Your task to perform on an android device: Open sound settings Image 0: 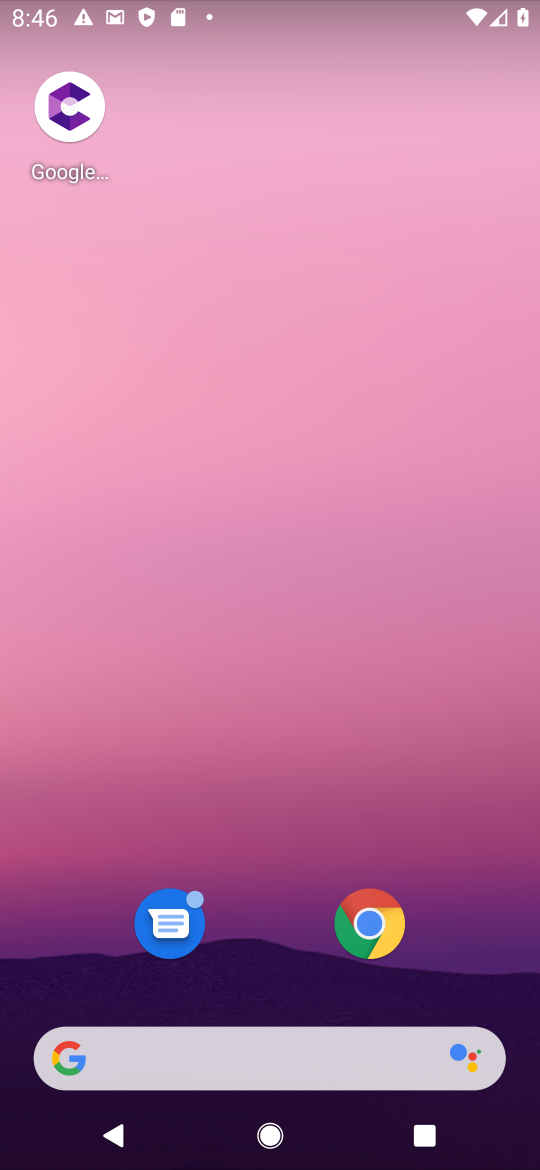
Step 0: press home button
Your task to perform on an android device: Open sound settings Image 1: 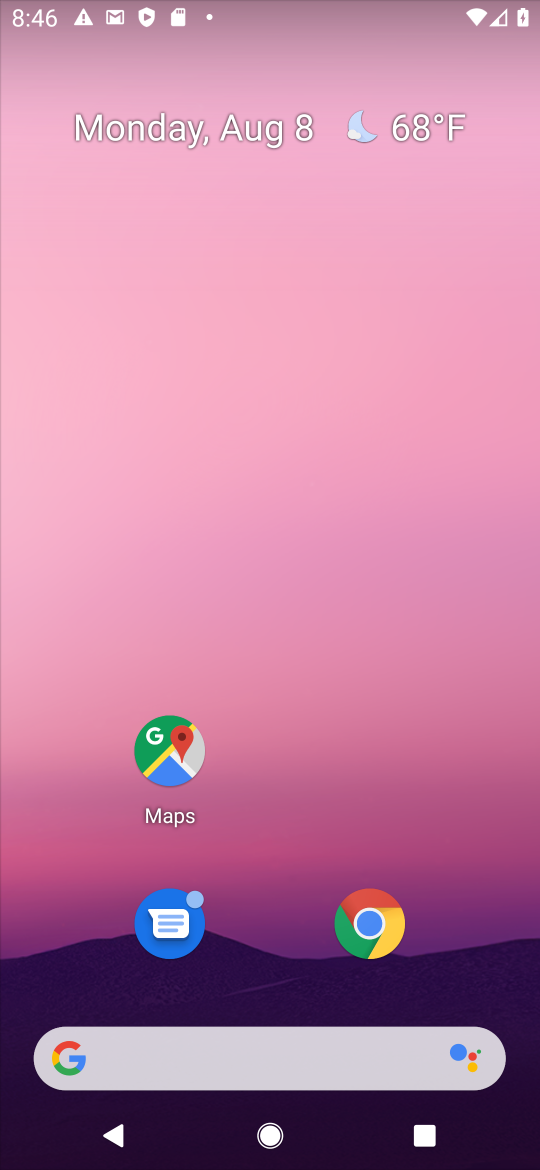
Step 1: drag from (299, 894) to (410, 135)
Your task to perform on an android device: Open sound settings Image 2: 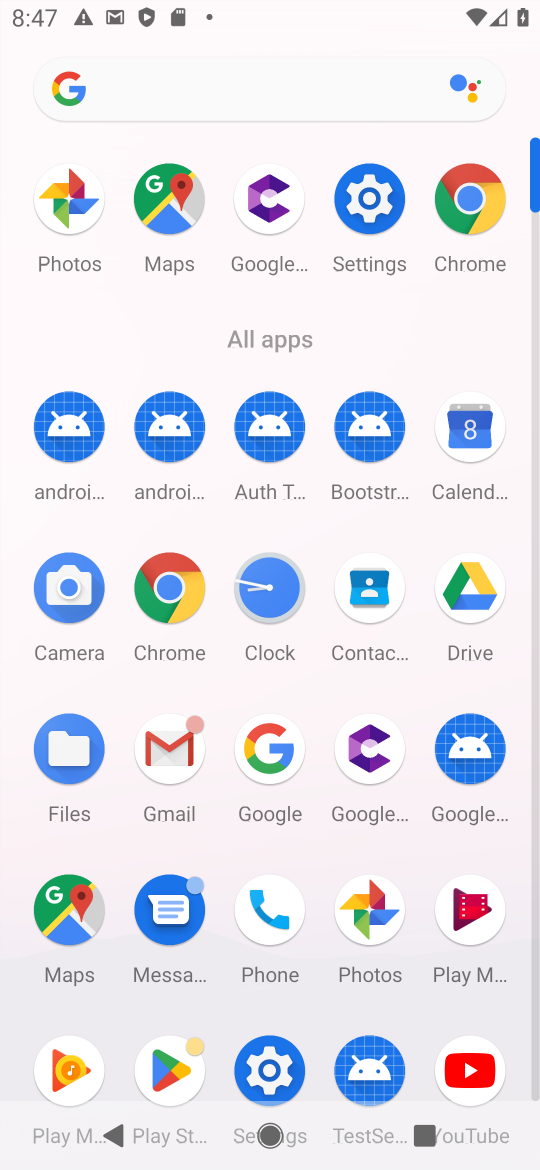
Step 2: drag from (373, 192) to (437, 702)
Your task to perform on an android device: Open sound settings Image 3: 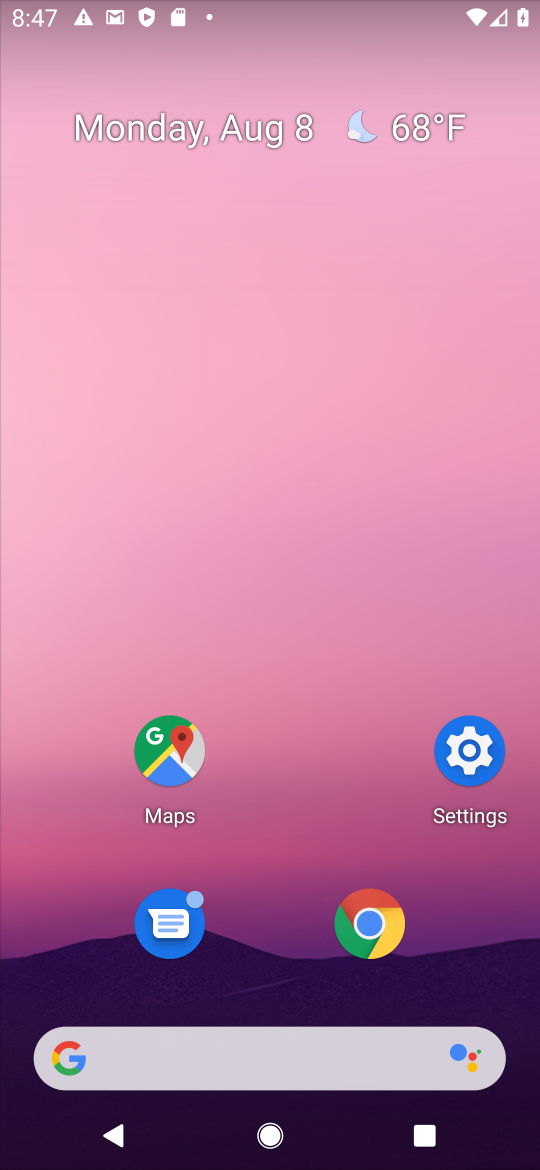
Step 3: click (469, 750)
Your task to perform on an android device: Open sound settings Image 4: 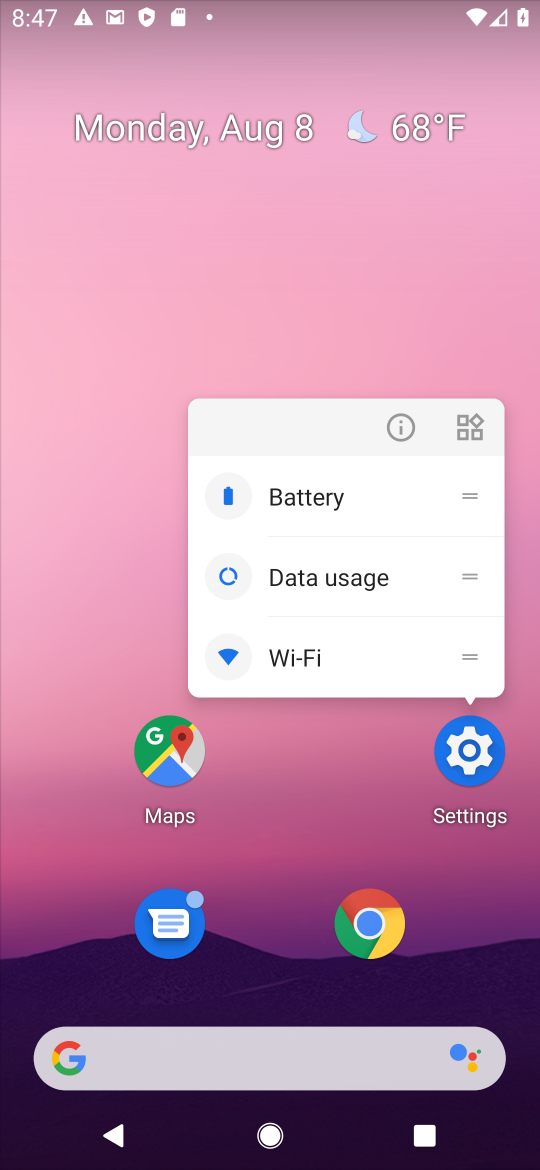
Step 4: click (469, 748)
Your task to perform on an android device: Open sound settings Image 5: 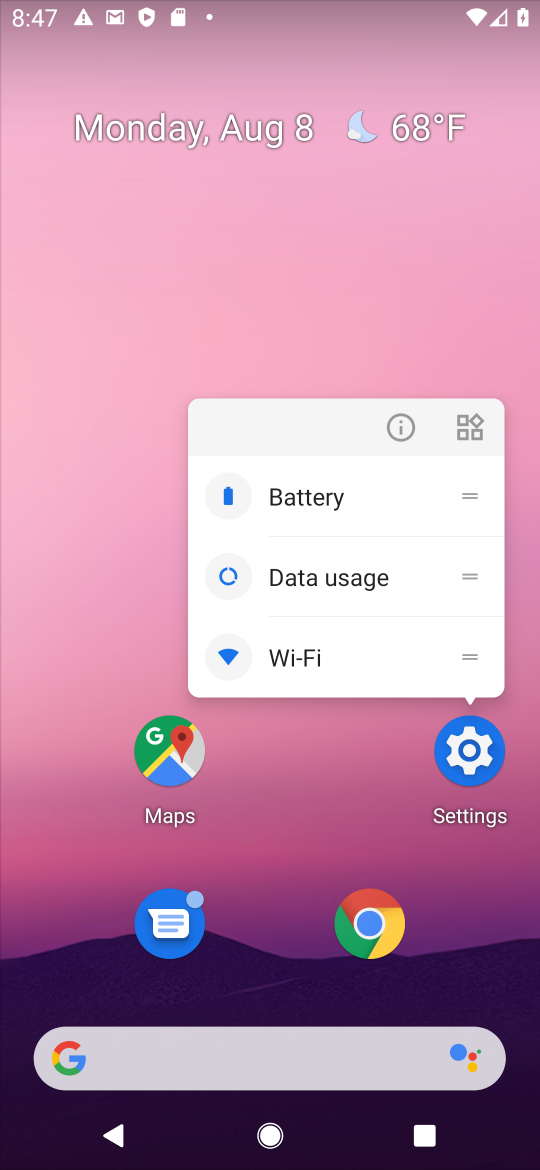
Step 5: click (469, 737)
Your task to perform on an android device: Open sound settings Image 6: 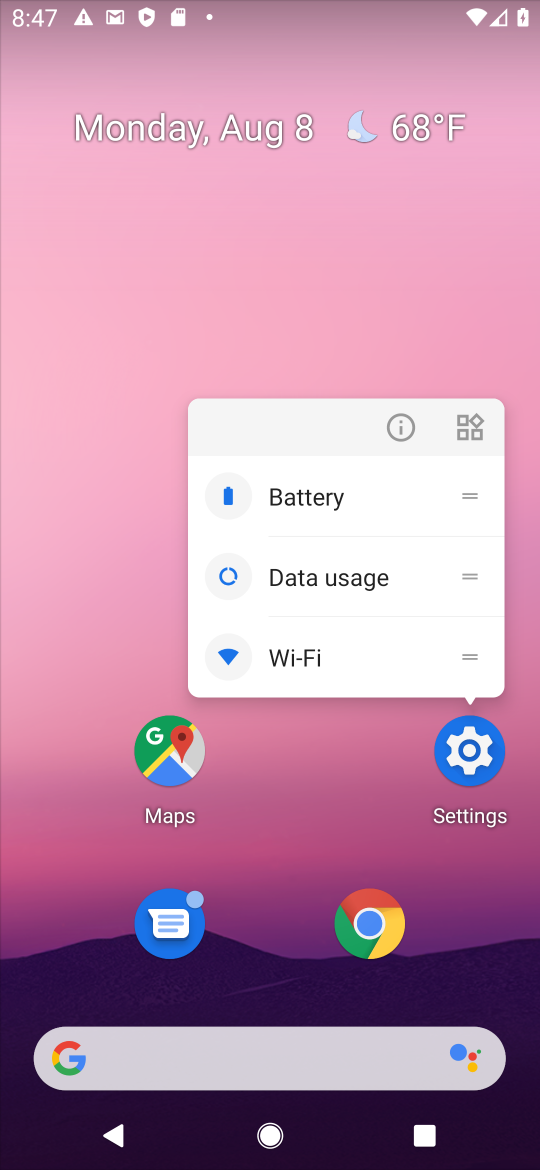
Step 6: click (469, 733)
Your task to perform on an android device: Open sound settings Image 7: 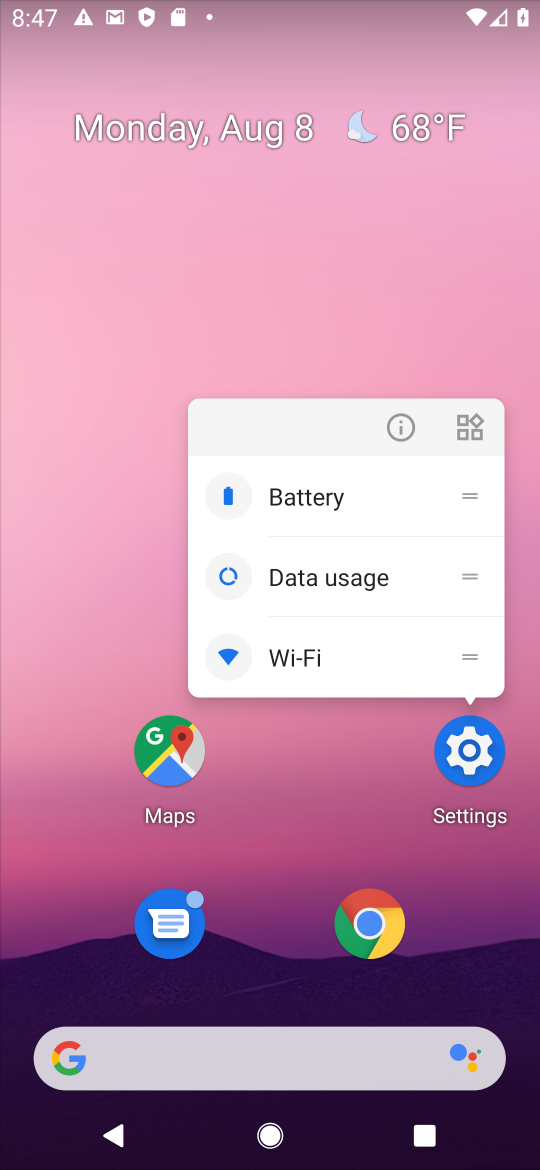
Step 7: click (469, 734)
Your task to perform on an android device: Open sound settings Image 8: 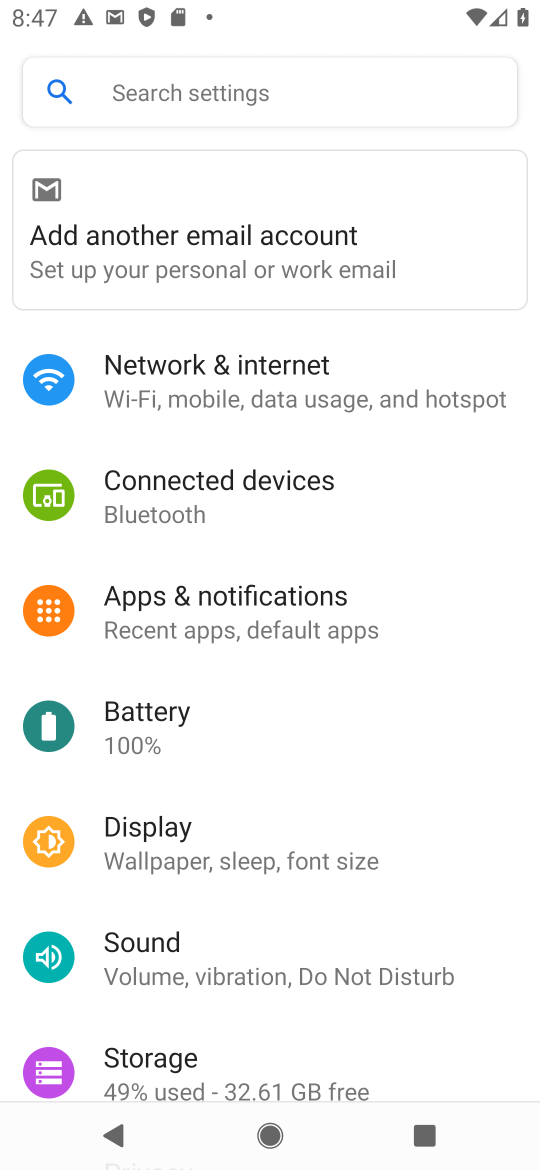
Step 8: click (195, 964)
Your task to perform on an android device: Open sound settings Image 9: 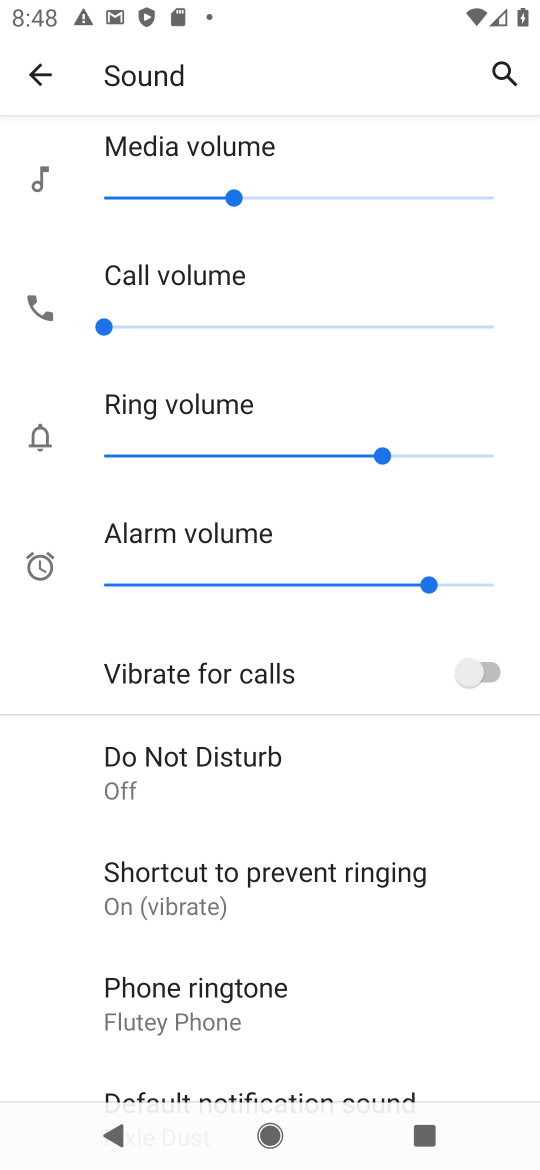
Step 9: task complete